Your task to perform on an android device: Do I have any events tomorrow? Image 0: 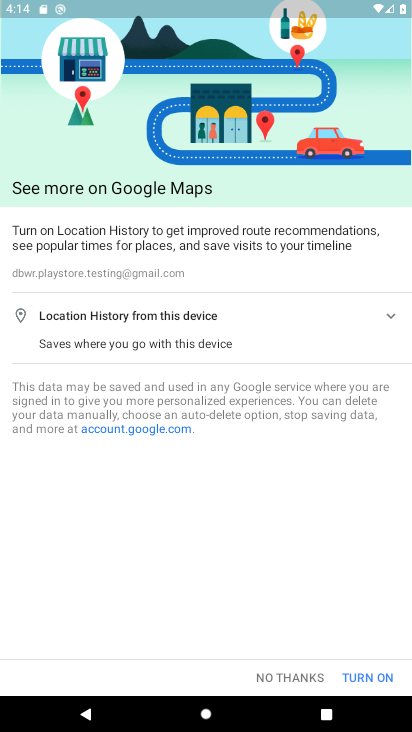
Step 0: press home button
Your task to perform on an android device: Do I have any events tomorrow? Image 1: 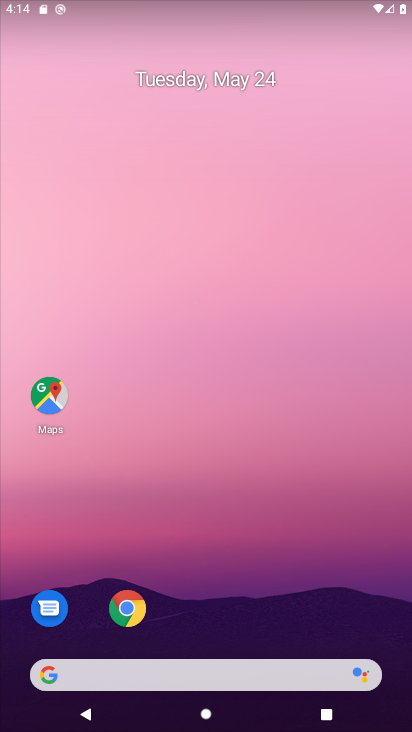
Step 1: drag from (184, 661) to (160, 223)
Your task to perform on an android device: Do I have any events tomorrow? Image 2: 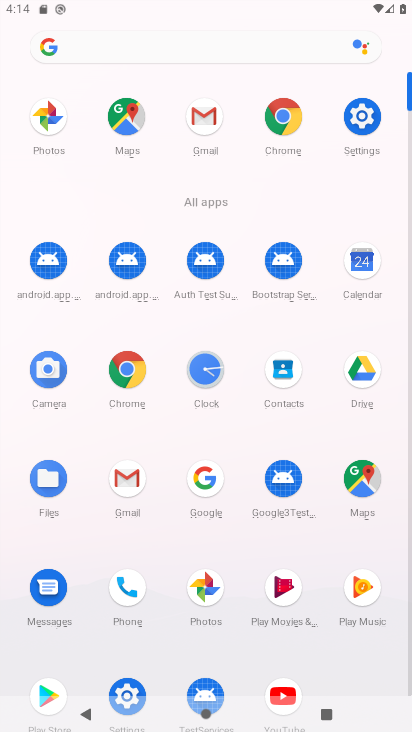
Step 2: click (359, 270)
Your task to perform on an android device: Do I have any events tomorrow? Image 3: 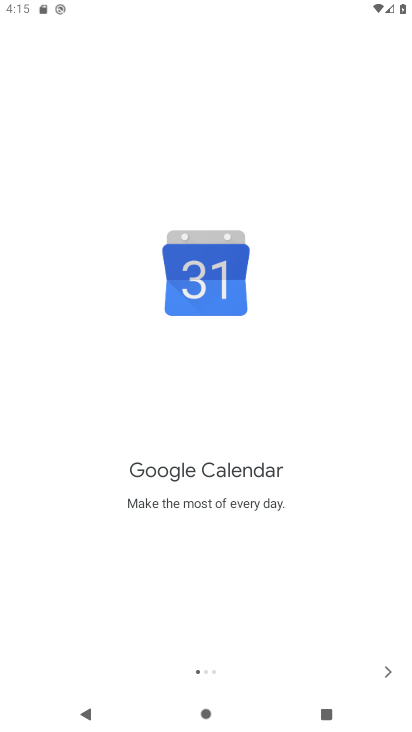
Step 3: click (393, 670)
Your task to perform on an android device: Do I have any events tomorrow? Image 4: 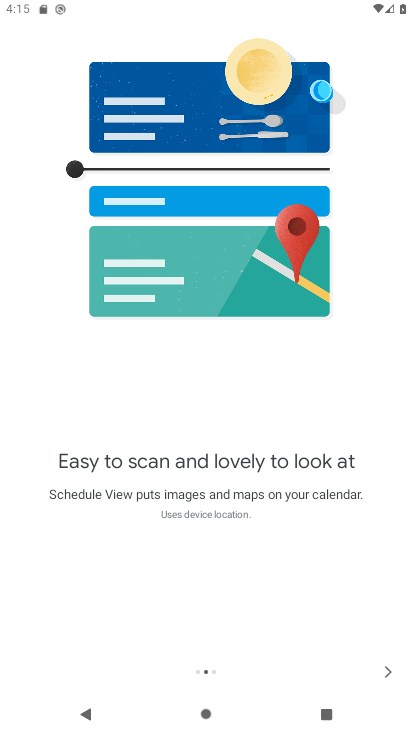
Step 4: click (388, 678)
Your task to perform on an android device: Do I have any events tomorrow? Image 5: 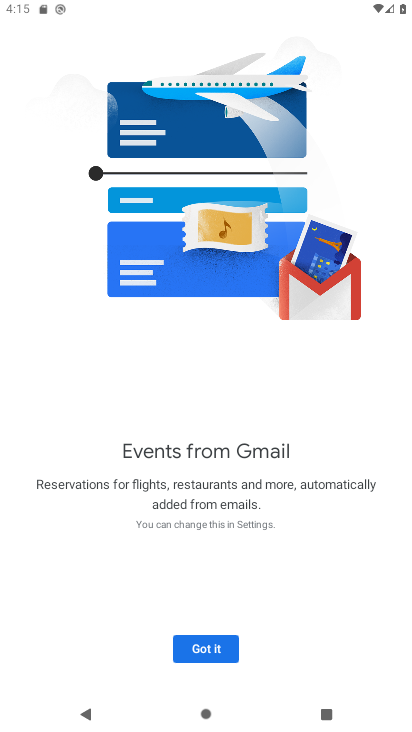
Step 5: click (388, 678)
Your task to perform on an android device: Do I have any events tomorrow? Image 6: 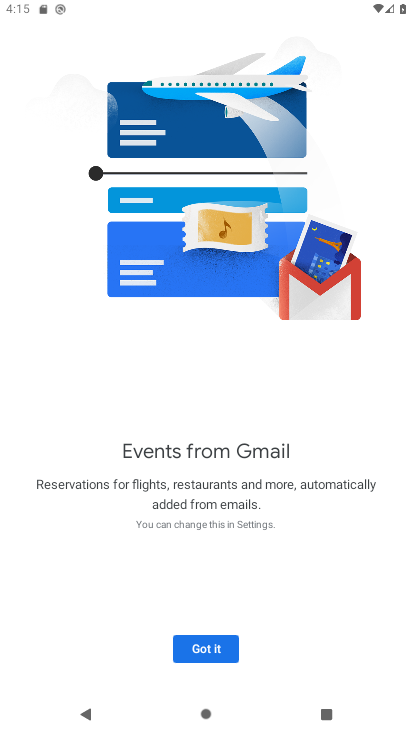
Step 6: click (197, 653)
Your task to perform on an android device: Do I have any events tomorrow? Image 7: 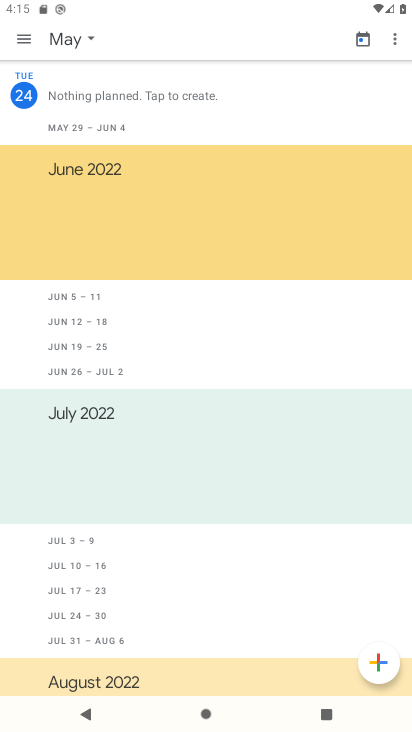
Step 7: click (60, 8)
Your task to perform on an android device: Do I have any events tomorrow? Image 8: 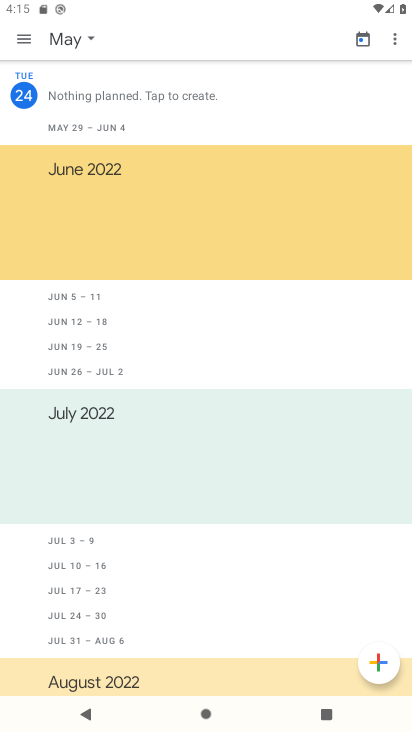
Step 8: click (63, 42)
Your task to perform on an android device: Do I have any events tomorrow? Image 9: 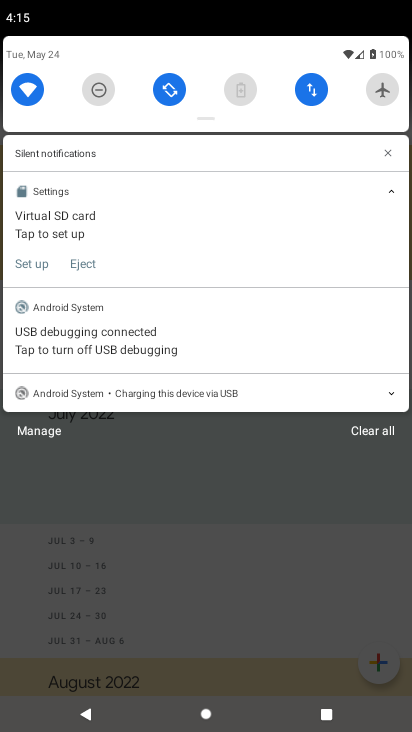
Step 9: click (112, 492)
Your task to perform on an android device: Do I have any events tomorrow? Image 10: 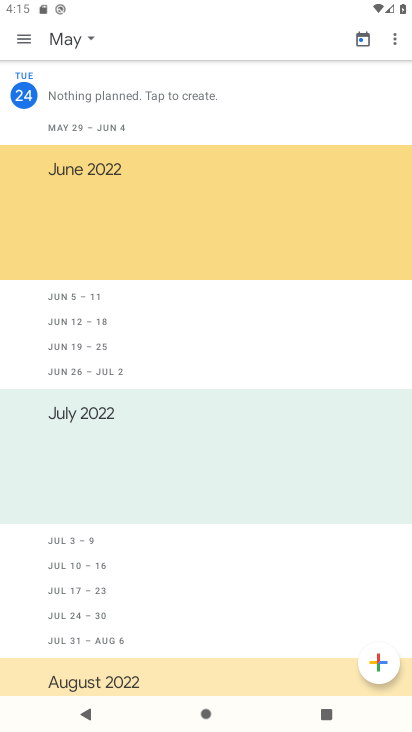
Step 10: click (76, 51)
Your task to perform on an android device: Do I have any events tomorrow? Image 11: 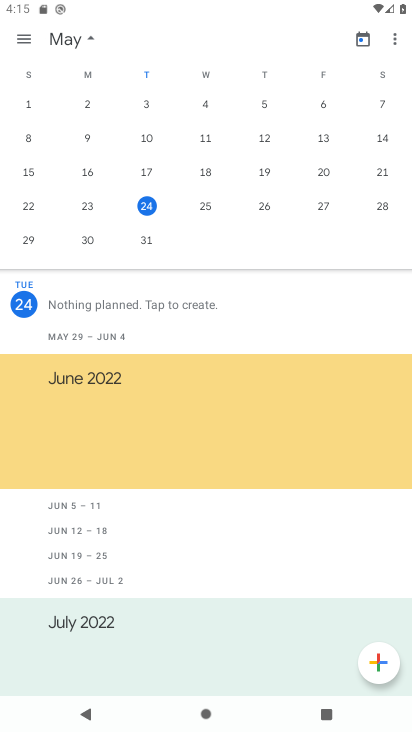
Step 11: click (208, 212)
Your task to perform on an android device: Do I have any events tomorrow? Image 12: 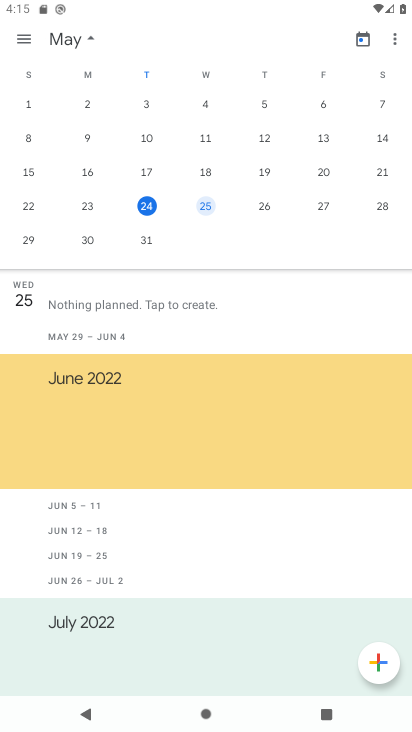
Step 12: task complete